Your task to perform on an android device: Go to ESPN.com Image 0: 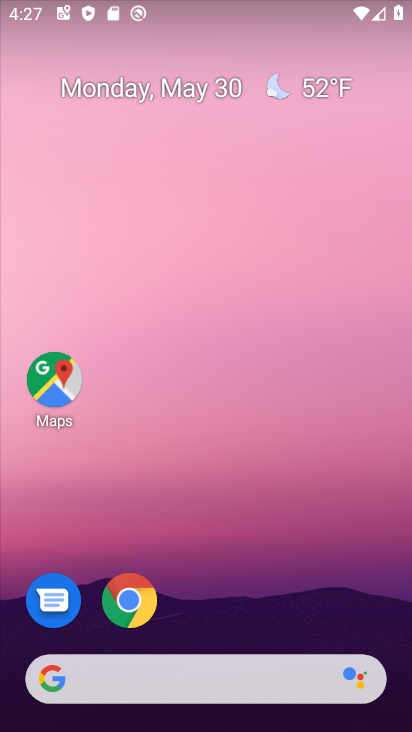
Step 0: click (125, 593)
Your task to perform on an android device: Go to ESPN.com Image 1: 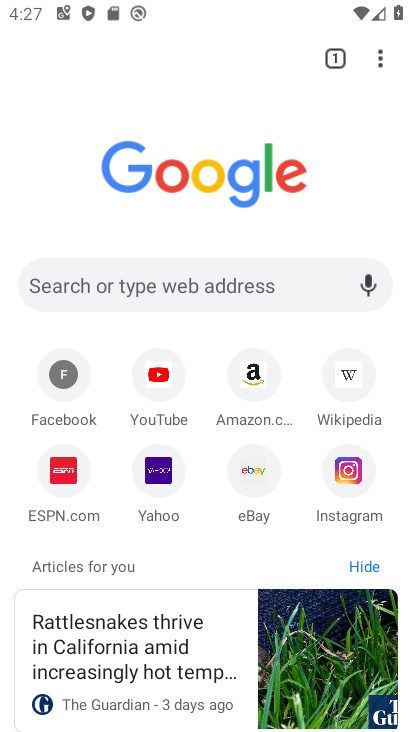
Step 1: click (59, 464)
Your task to perform on an android device: Go to ESPN.com Image 2: 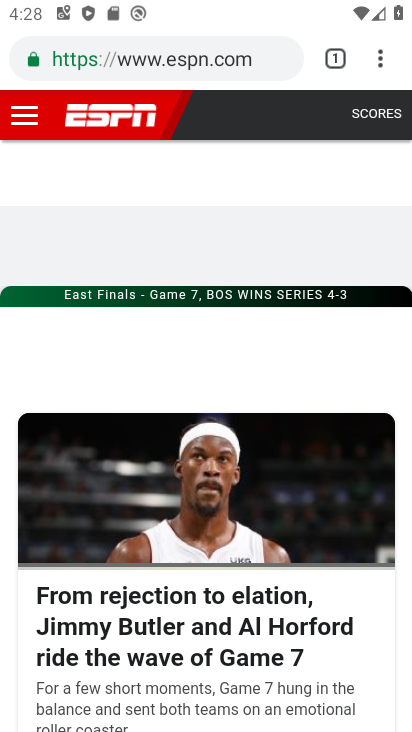
Step 2: click (332, 60)
Your task to perform on an android device: Go to ESPN.com Image 3: 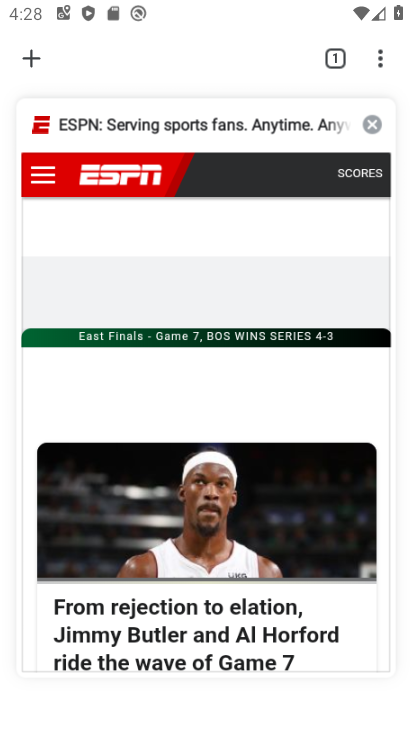
Step 3: click (245, 405)
Your task to perform on an android device: Go to ESPN.com Image 4: 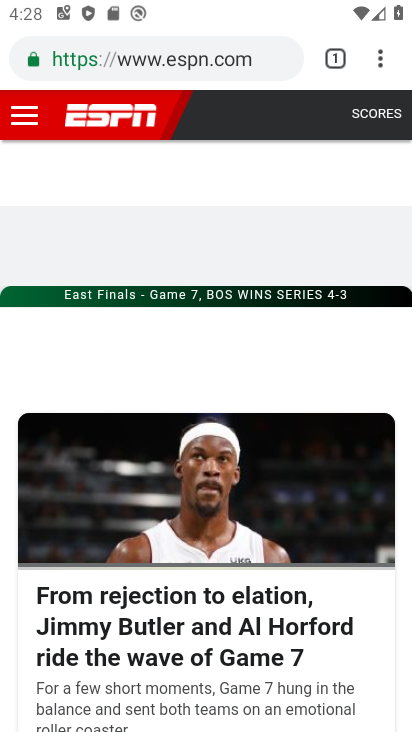
Step 4: task complete